Your task to perform on an android device: Go to calendar. Show me events next week Image 0: 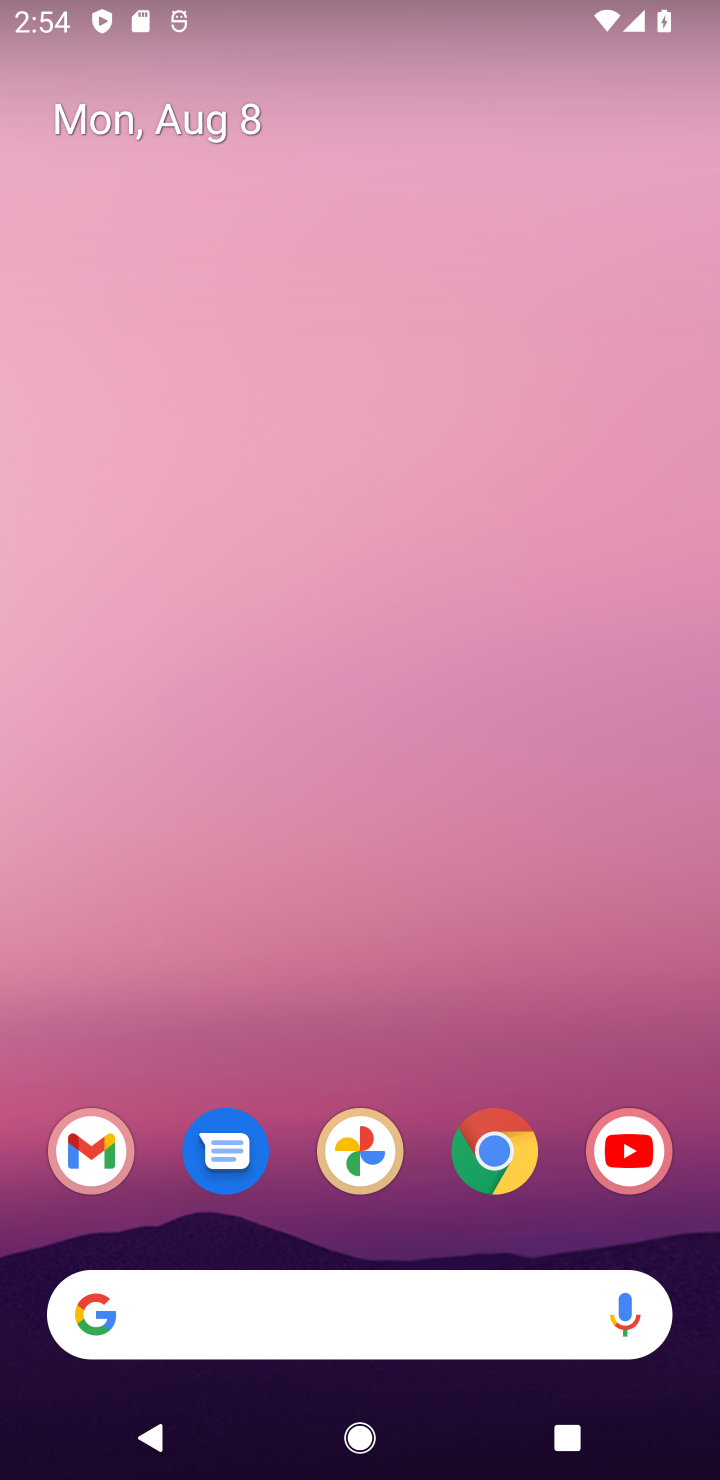
Step 0: drag from (346, 997) to (314, 79)
Your task to perform on an android device: Go to calendar. Show me events next week Image 1: 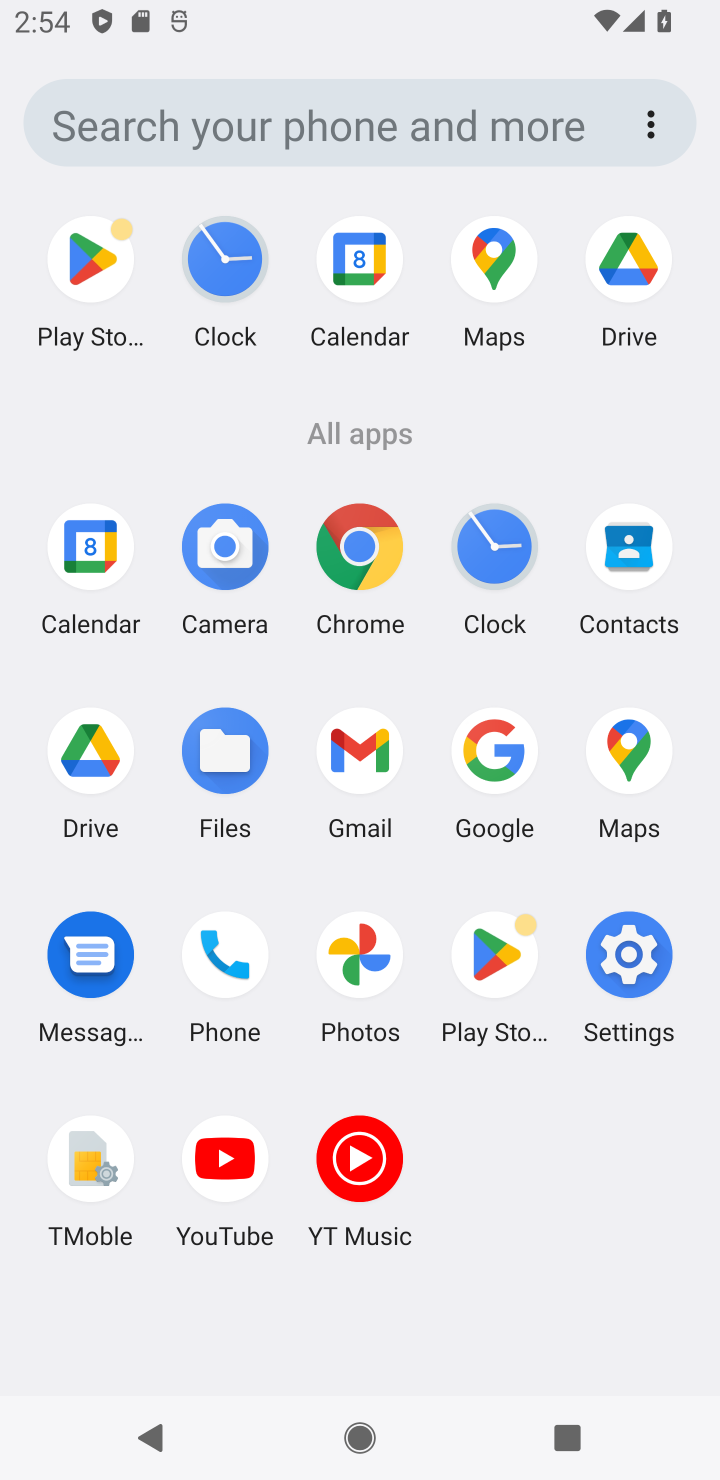
Step 1: click (96, 612)
Your task to perform on an android device: Go to calendar. Show me events next week Image 2: 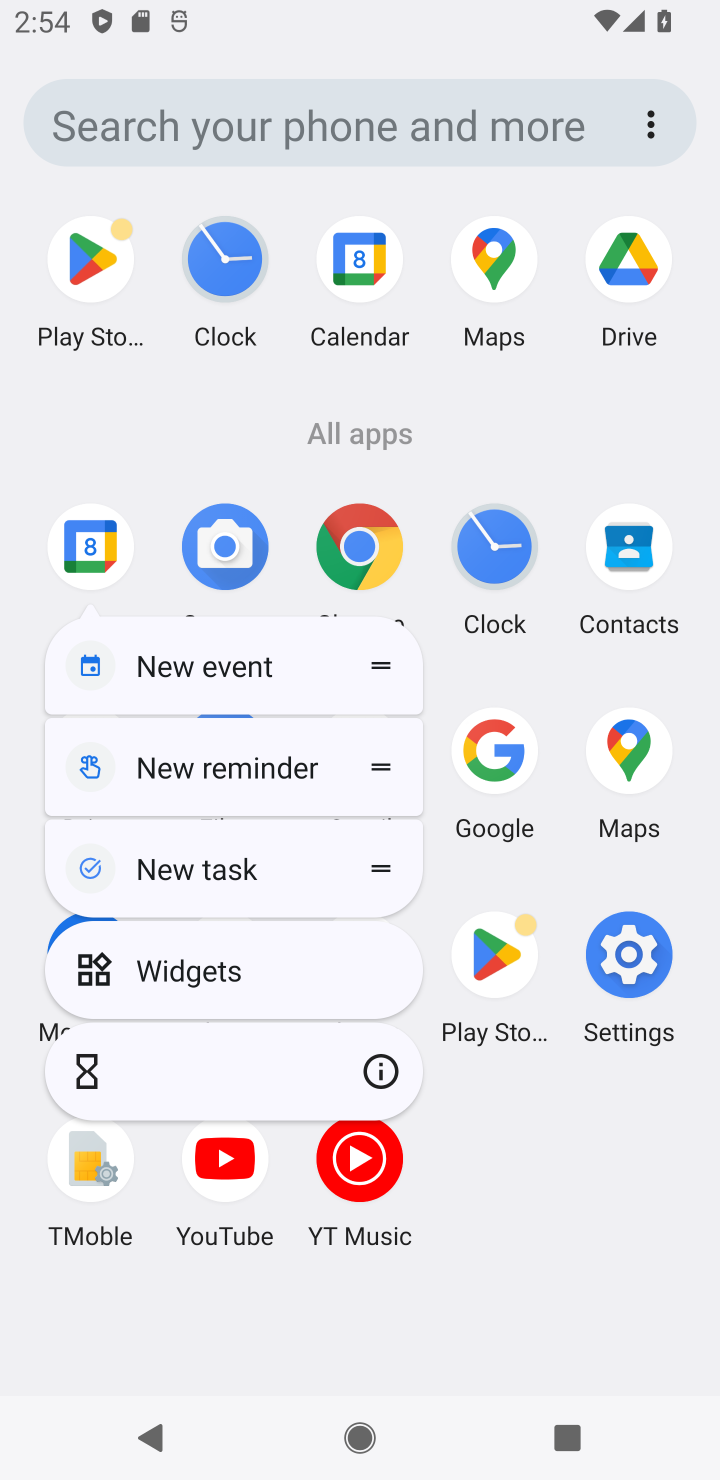
Step 2: click (79, 551)
Your task to perform on an android device: Go to calendar. Show me events next week Image 3: 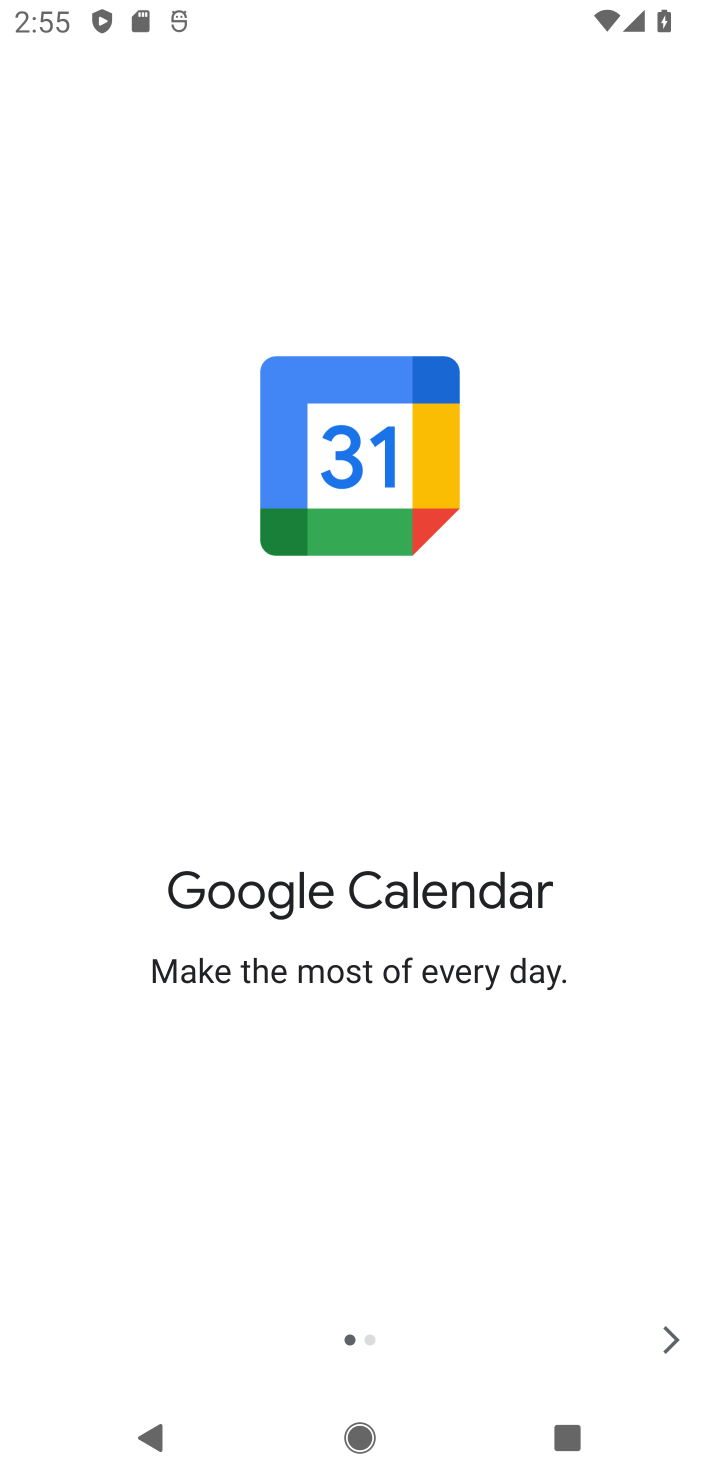
Step 3: click (680, 1329)
Your task to perform on an android device: Go to calendar. Show me events next week Image 4: 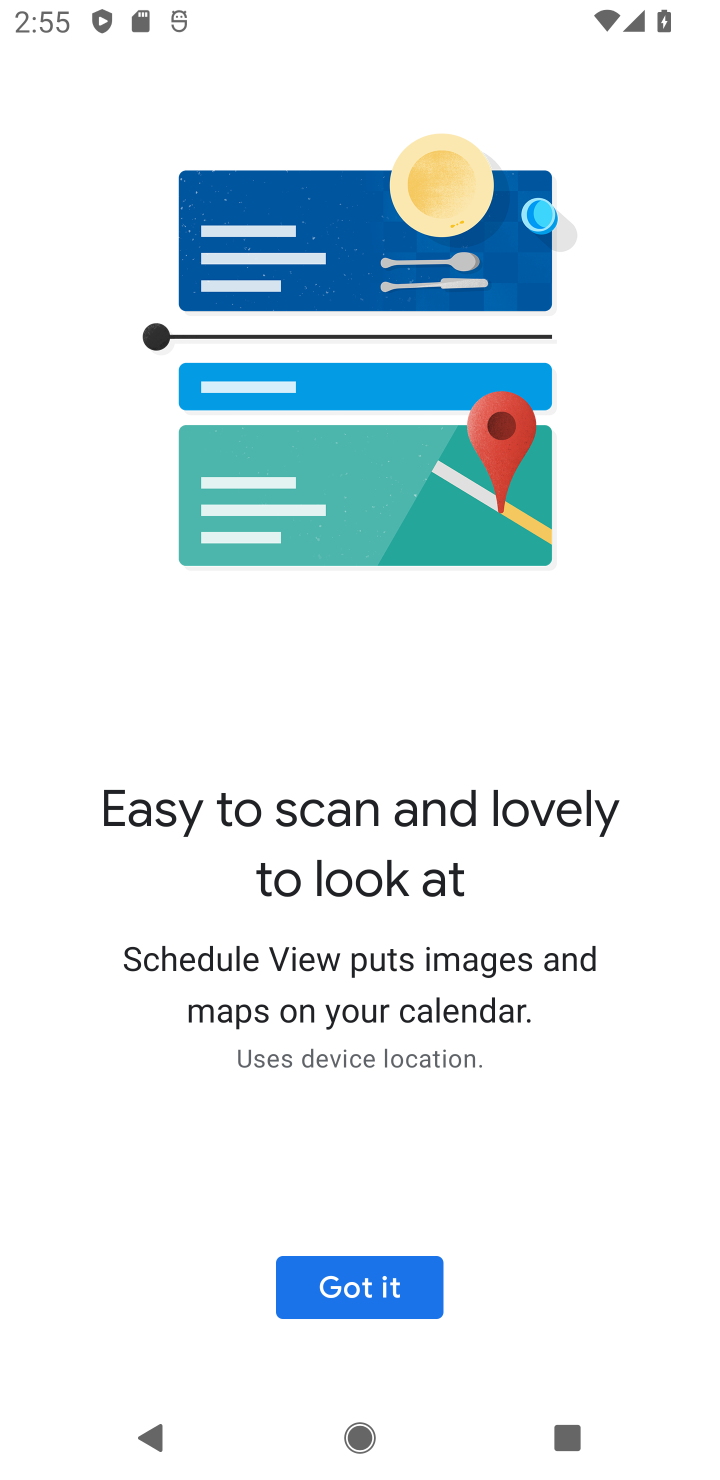
Step 4: click (345, 1301)
Your task to perform on an android device: Go to calendar. Show me events next week Image 5: 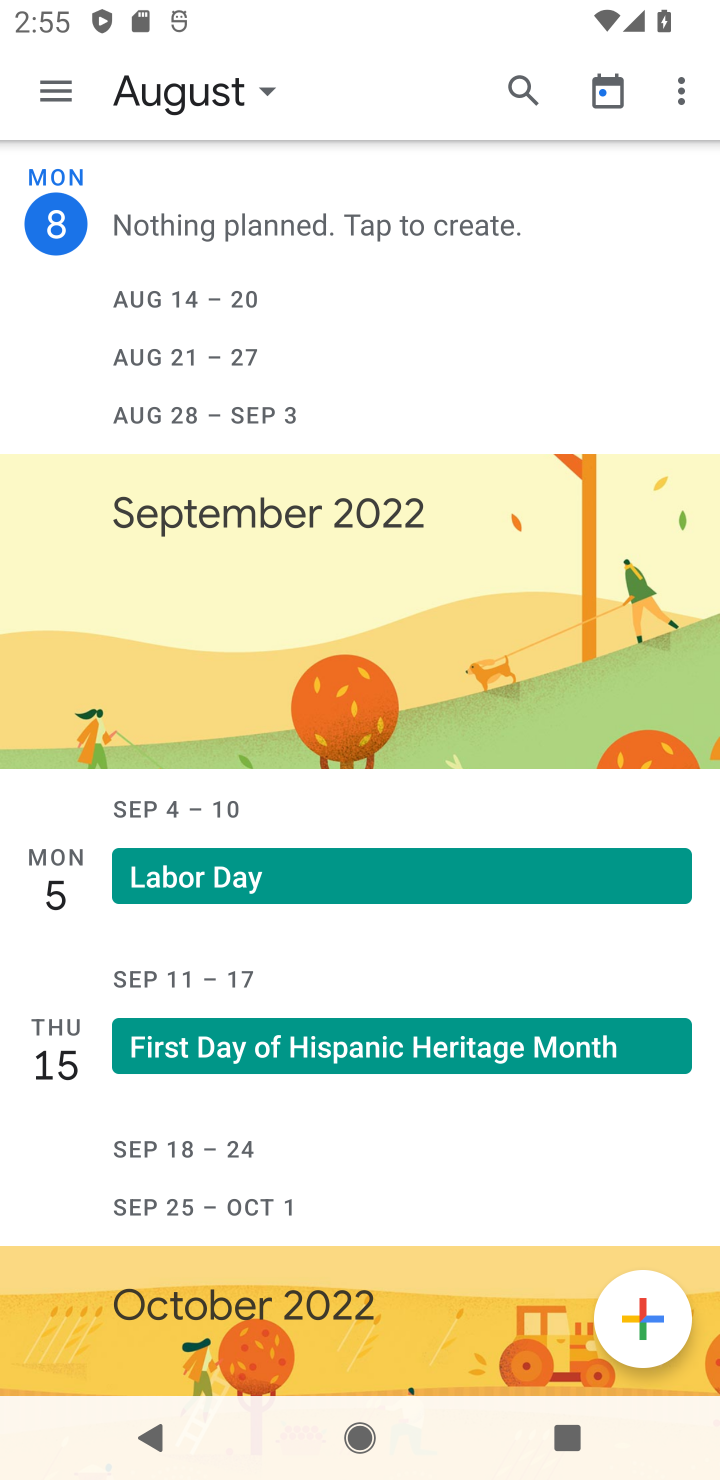
Step 5: click (242, 104)
Your task to perform on an android device: Go to calendar. Show me events next week Image 6: 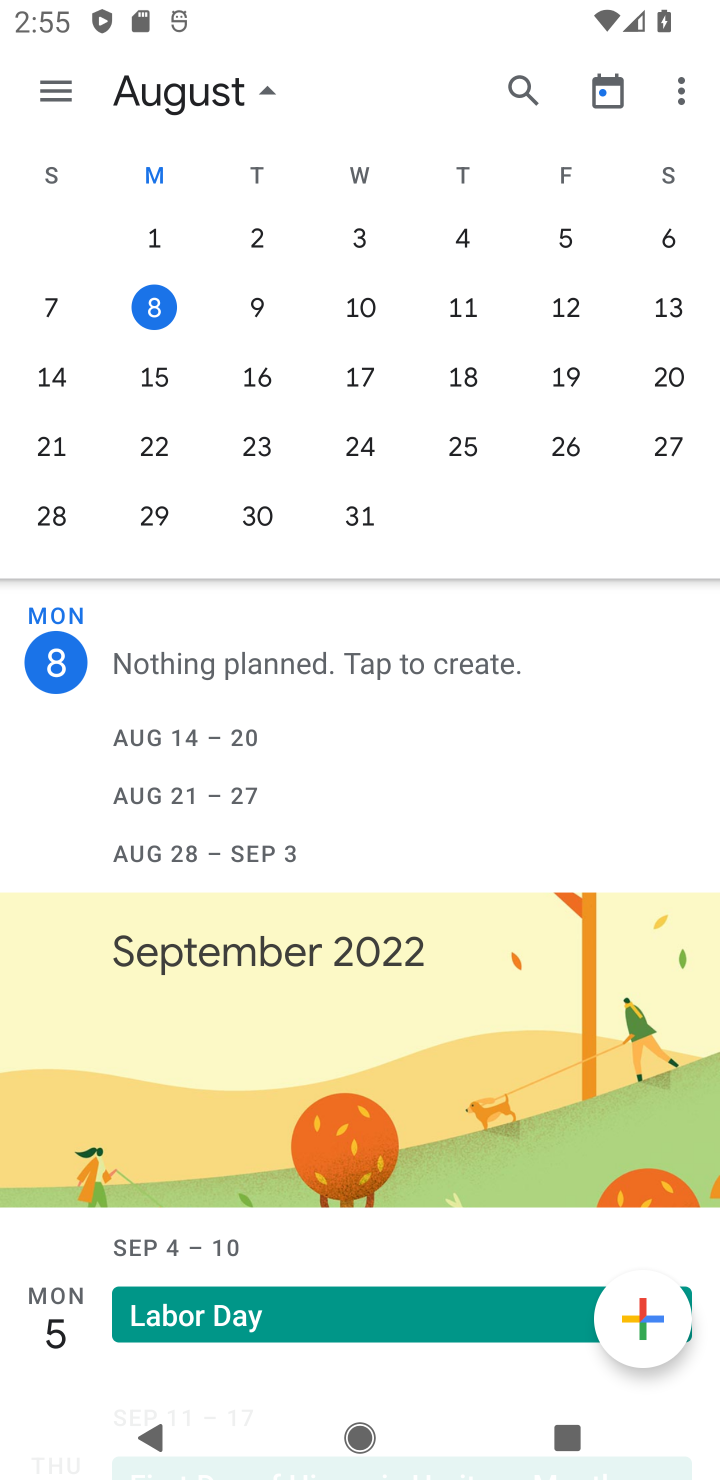
Step 6: click (30, 366)
Your task to perform on an android device: Go to calendar. Show me events next week Image 7: 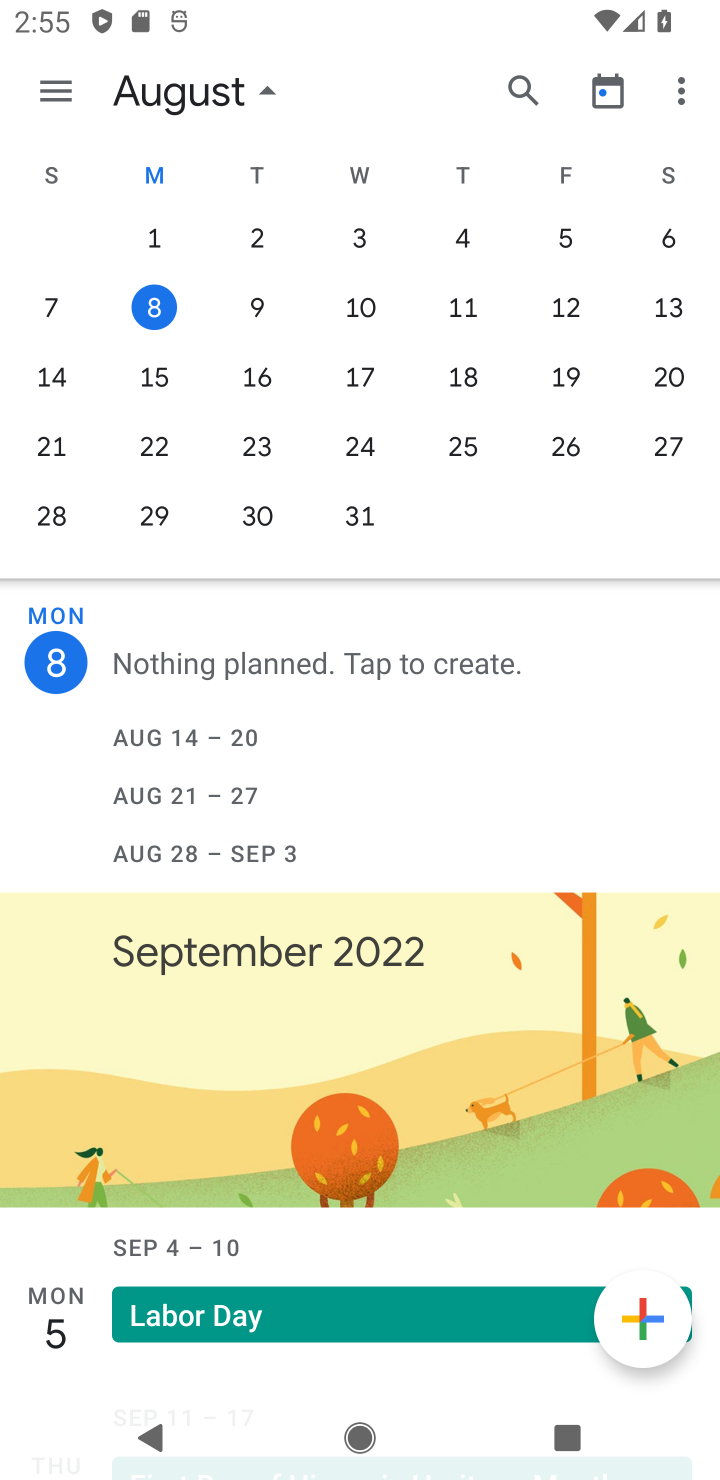
Step 7: click (47, 373)
Your task to perform on an android device: Go to calendar. Show me events next week Image 8: 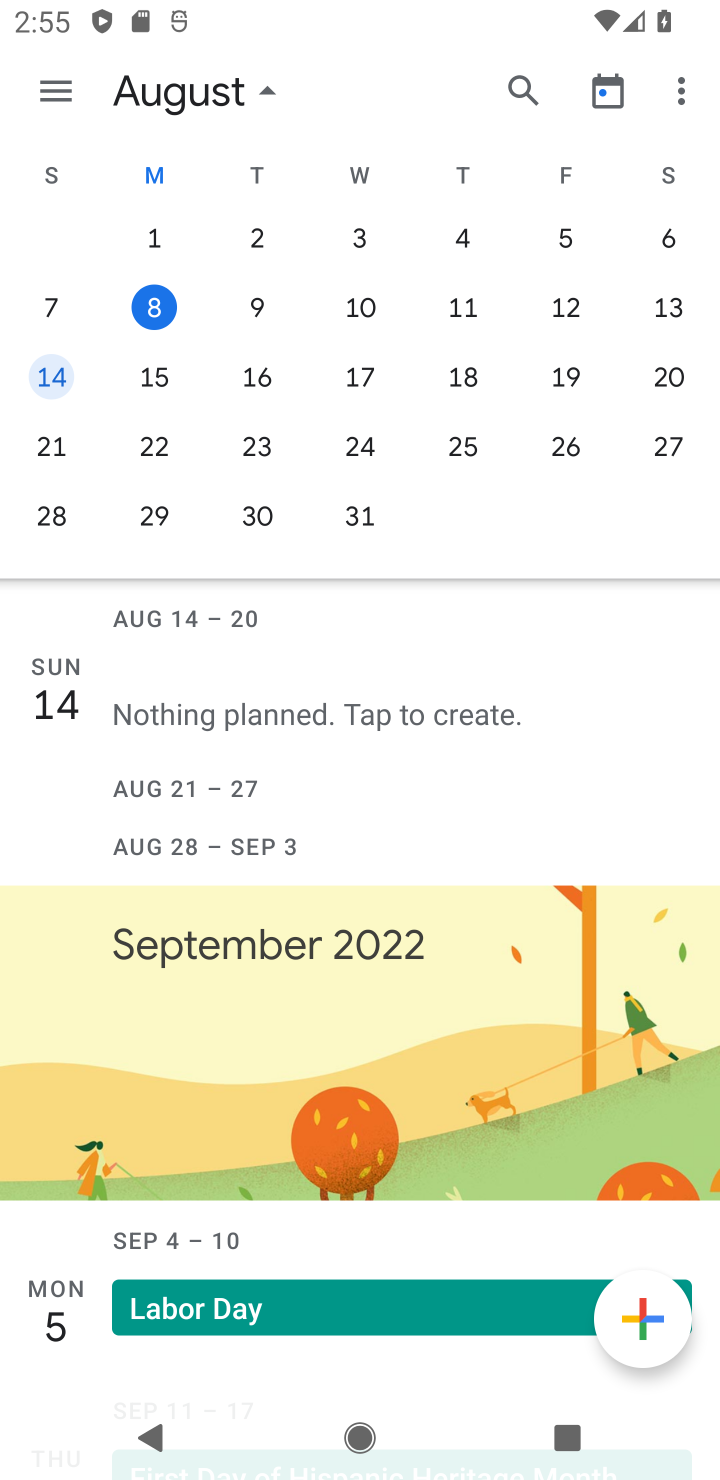
Step 8: click (36, 373)
Your task to perform on an android device: Go to calendar. Show me events next week Image 9: 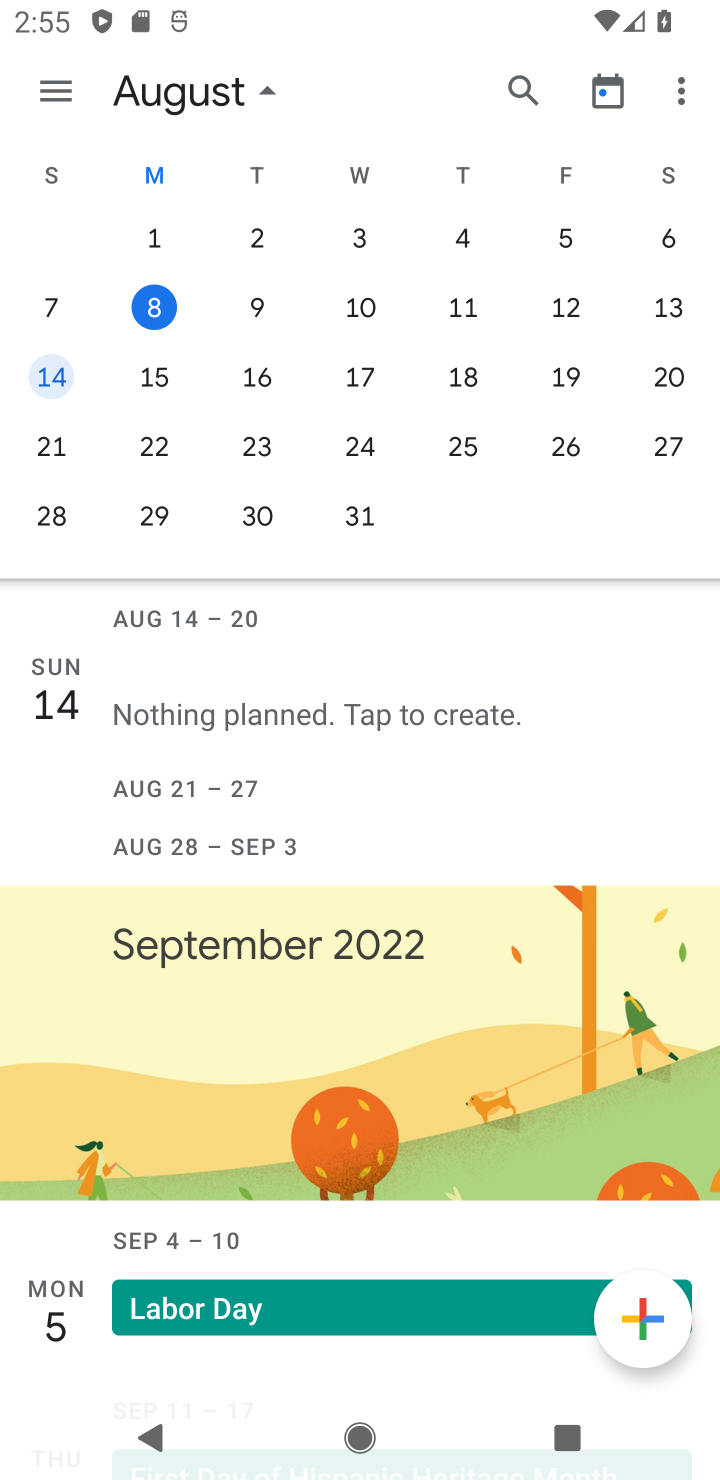
Step 9: task complete